Your task to perform on an android device: turn off location Image 0: 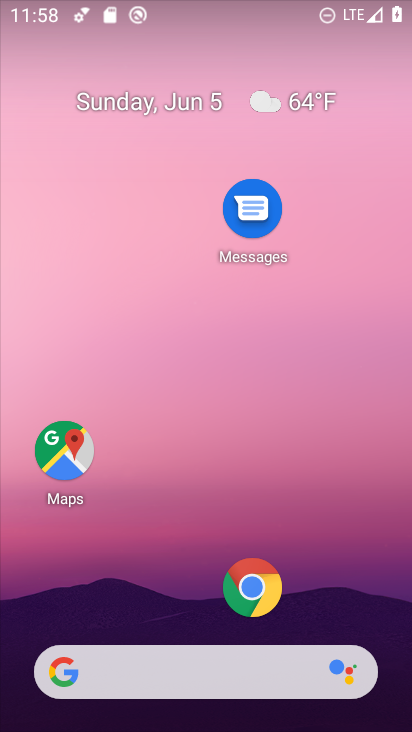
Step 0: drag from (302, 608) to (276, 296)
Your task to perform on an android device: turn off location Image 1: 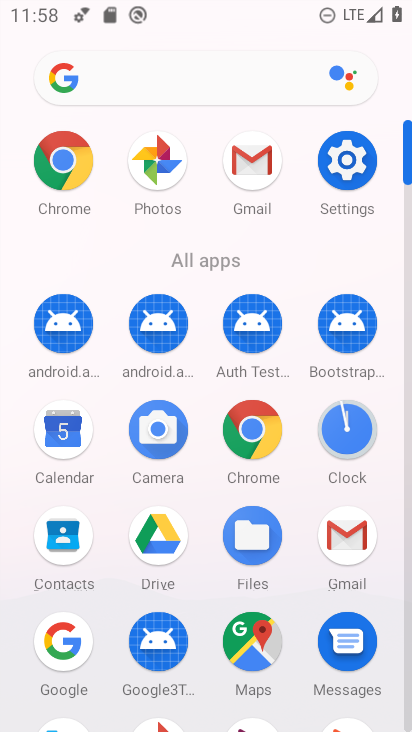
Step 1: click (363, 161)
Your task to perform on an android device: turn off location Image 2: 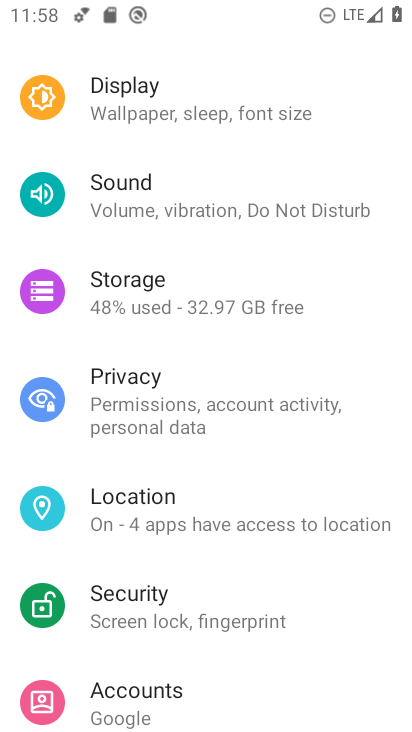
Step 2: click (107, 518)
Your task to perform on an android device: turn off location Image 3: 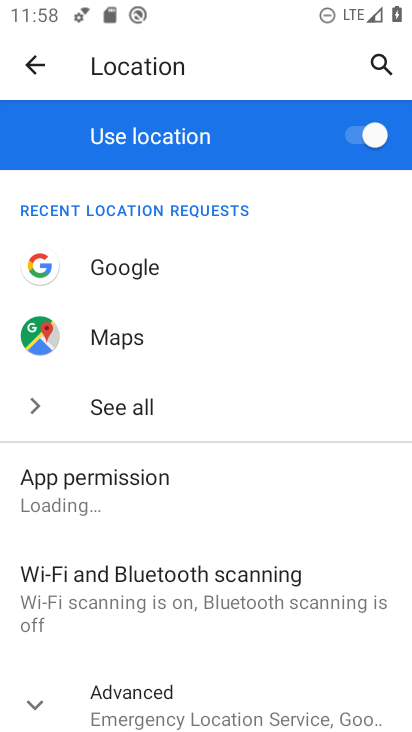
Step 3: click (355, 137)
Your task to perform on an android device: turn off location Image 4: 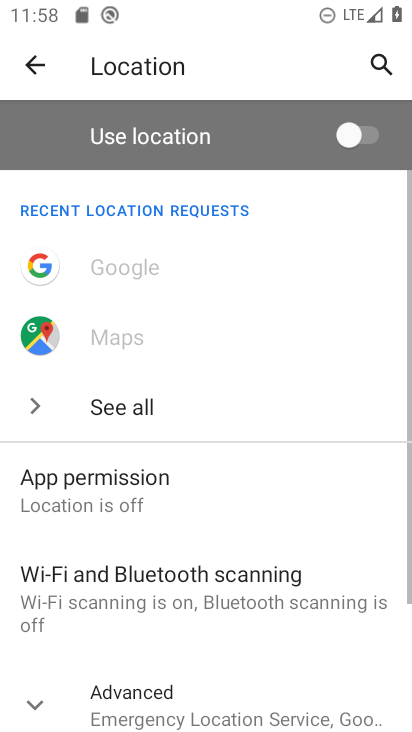
Step 4: task complete